Your task to perform on an android device: toggle translation in the chrome app Image 0: 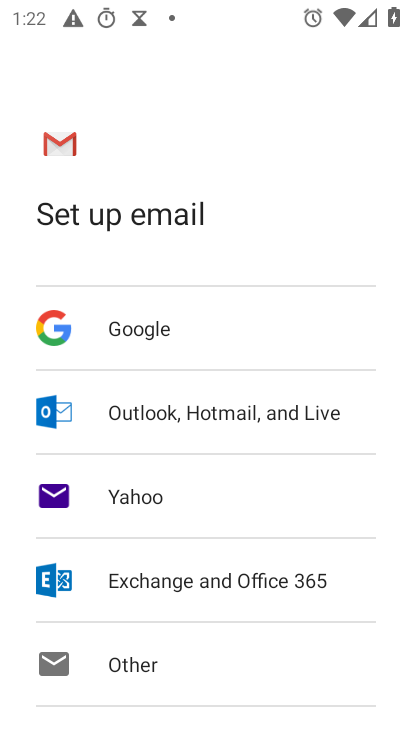
Step 0: press home button
Your task to perform on an android device: toggle translation in the chrome app Image 1: 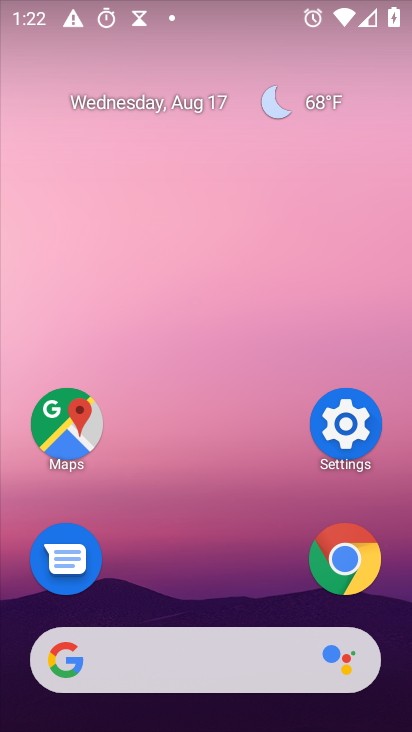
Step 1: click (347, 556)
Your task to perform on an android device: toggle translation in the chrome app Image 2: 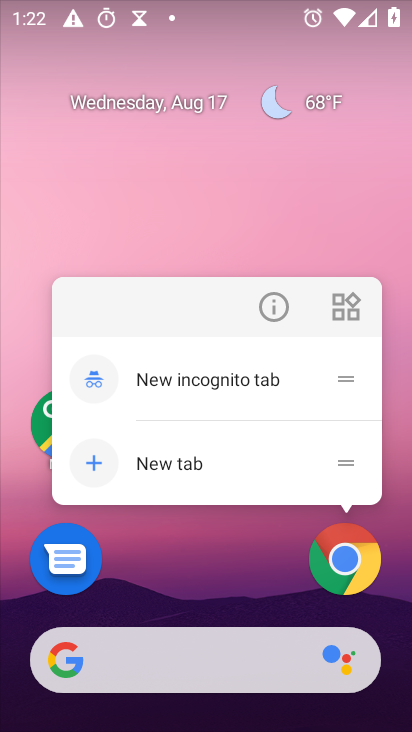
Step 2: click (347, 557)
Your task to perform on an android device: toggle translation in the chrome app Image 3: 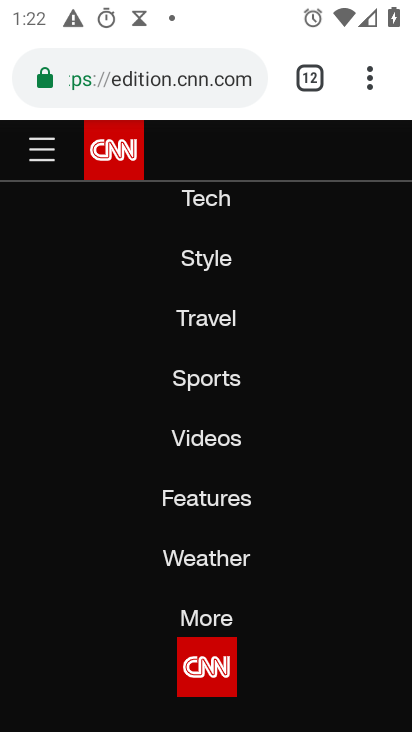
Step 3: drag from (368, 77) to (216, 625)
Your task to perform on an android device: toggle translation in the chrome app Image 4: 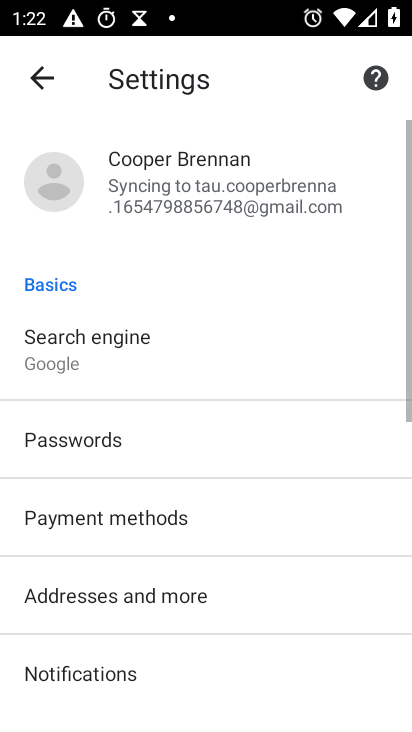
Step 4: drag from (215, 665) to (299, 192)
Your task to perform on an android device: toggle translation in the chrome app Image 5: 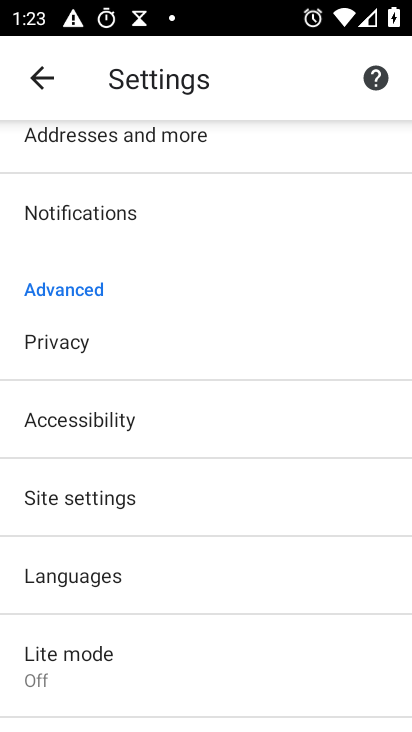
Step 5: drag from (219, 608) to (315, 252)
Your task to perform on an android device: toggle translation in the chrome app Image 6: 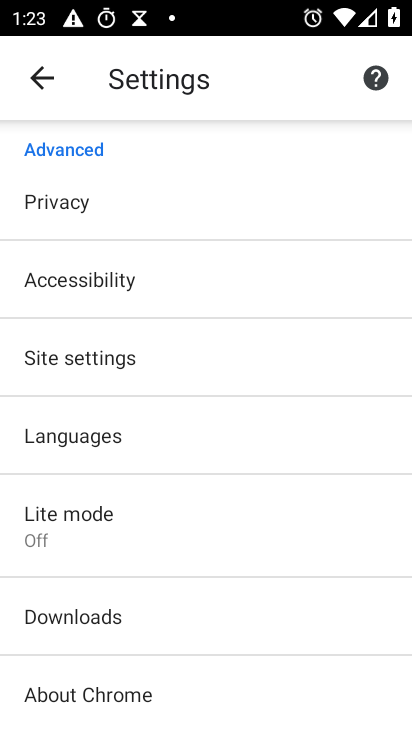
Step 6: click (129, 429)
Your task to perform on an android device: toggle translation in the chrome app Image 7: 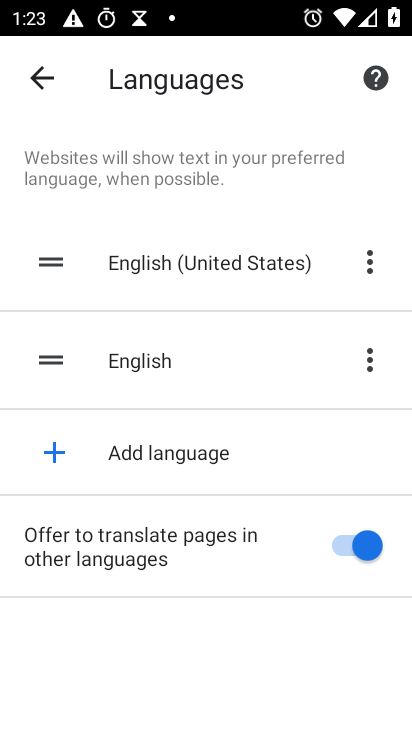
Step 7: click (348, 547)
Your task to perform on an android device: toggle translation in the chrome app Image 8: 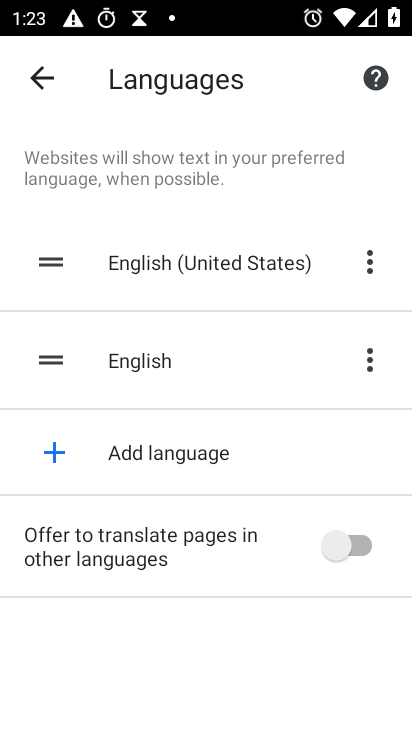
Step 8: task complete